Your task to perform on an android device: find photos in the google photos app Image 0: 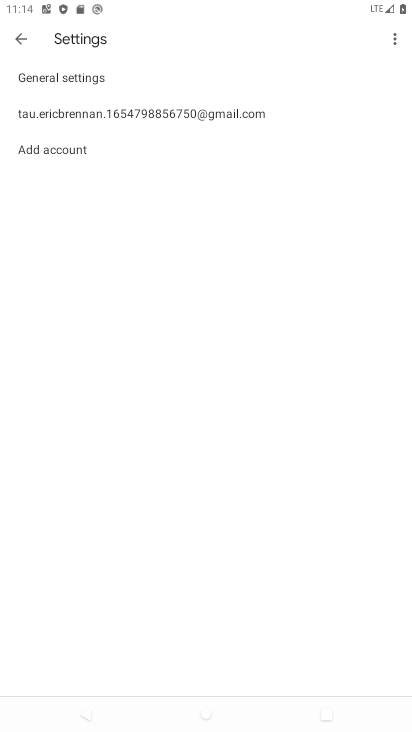
Step 0: press home button
Your task to perform on an android device: find photos in the google photos app Image 1: 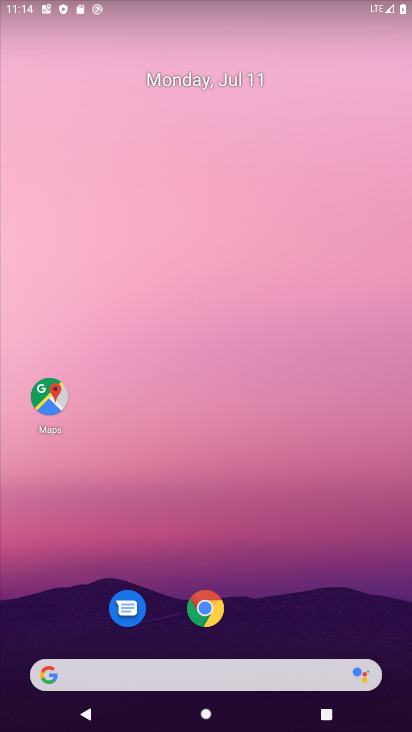
Step 1: drag from (32, 698) to (302, 15)
Your task to perform on an android device: find photos in the google photos app Image 2: 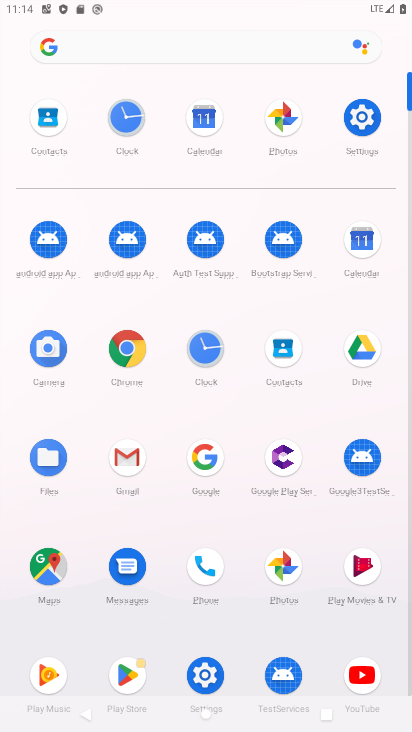
Step 2: click (277, 564)
Your task to perform on an android device: find photos in the google photos app Image 3: 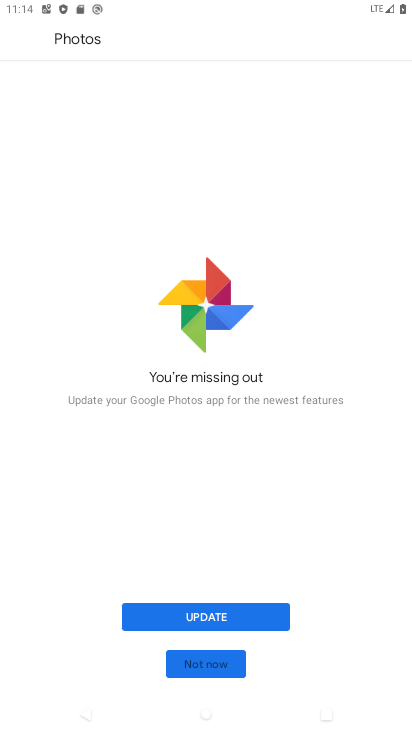
Step 3: click (191, 655)
Your task to perform on an android device: find photos in the google photos app Image 4: 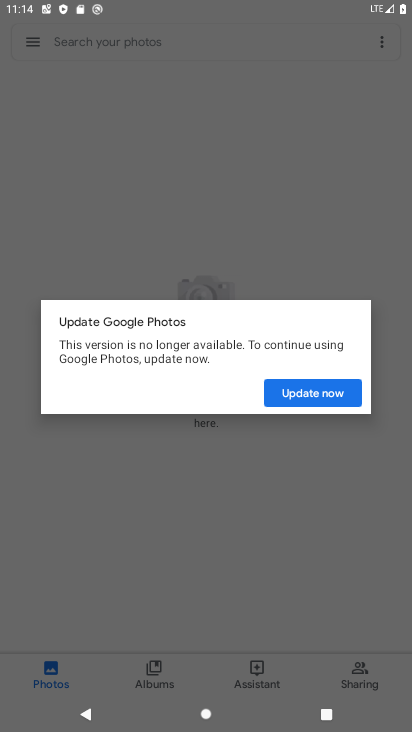
Step 4: click (304, 386)
Your task to perform on an android device: find photos in the google photos app Image 5: 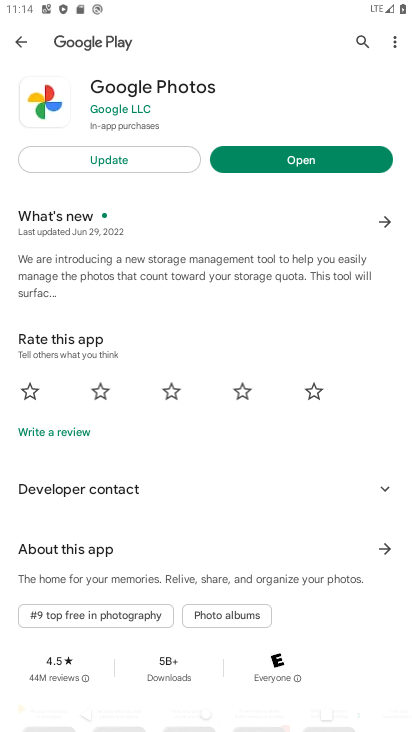
Step 5: click (297, 154)
Your task to perform on an android device: find photos in the google photos app Image 6: 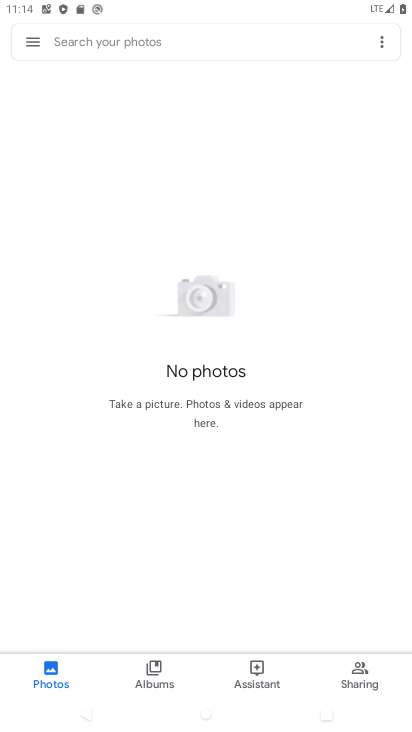
Step 6: task complete